Your task to perform on an android device: open wifi settings Image 0: 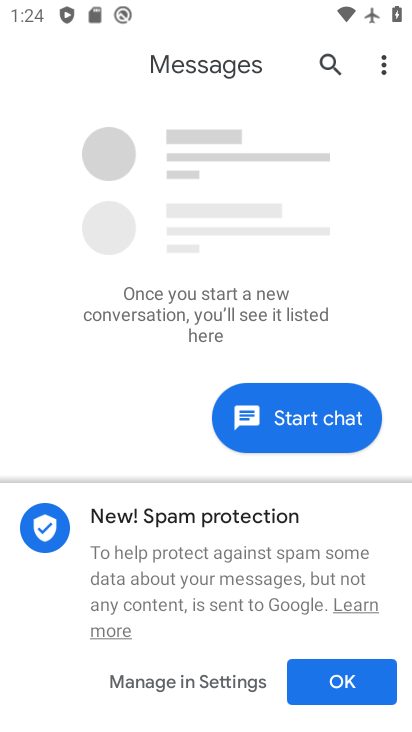
Step 0: press back button
Your task to perform on an android device: open wifi settings Image 1: 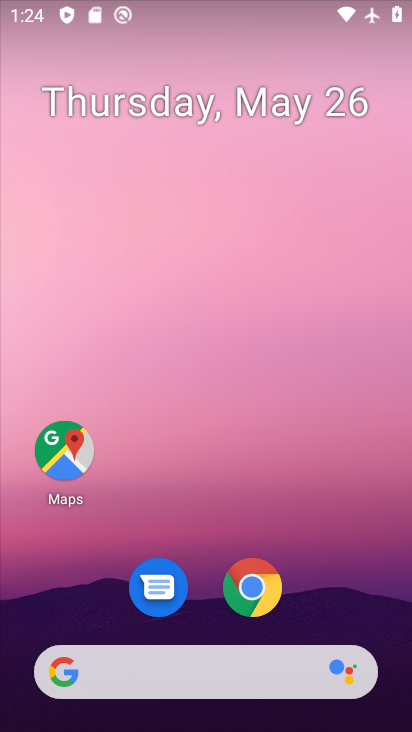
Step 1: drag from (320, 582) to (264, 67)
Your task to perform on an android device: open wifi settings Image 2: 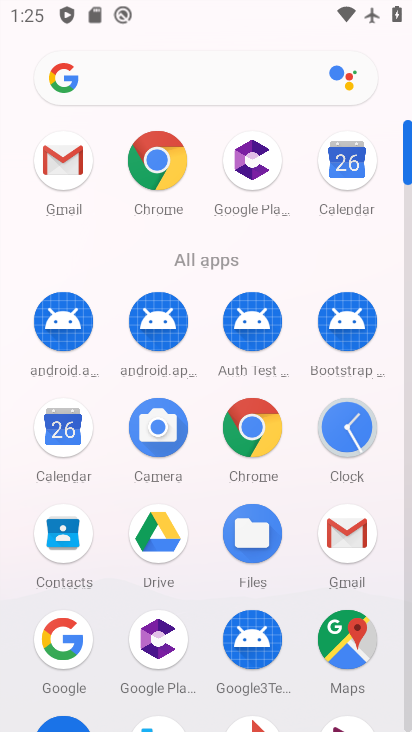
Step 2: drag from (26, 576) to (23, 220)
Your task to perform on an android device: open wifi settings Image 3: 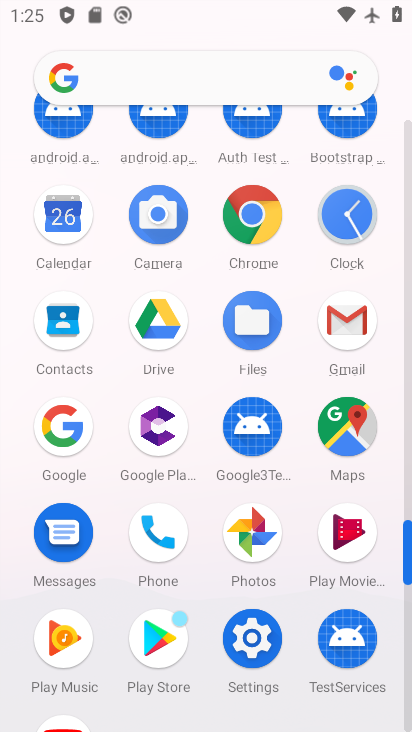
Step 3: click (247, 637)
Your task to perform on an android device: open wifi settings Image 4: 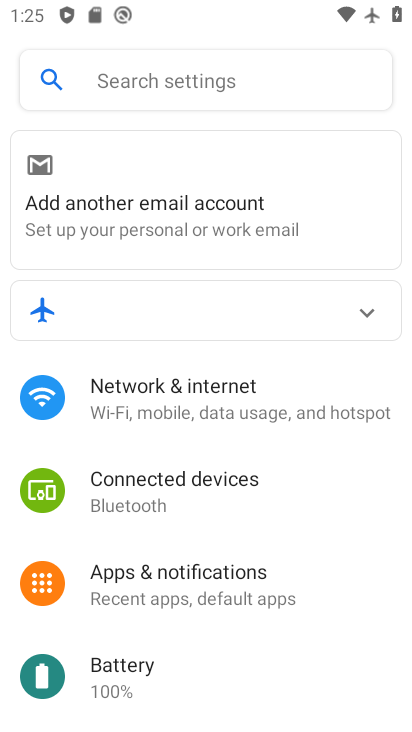
Step 4: click (245, 409)
Your task to perform on an android device: open wifi settings Image 5: 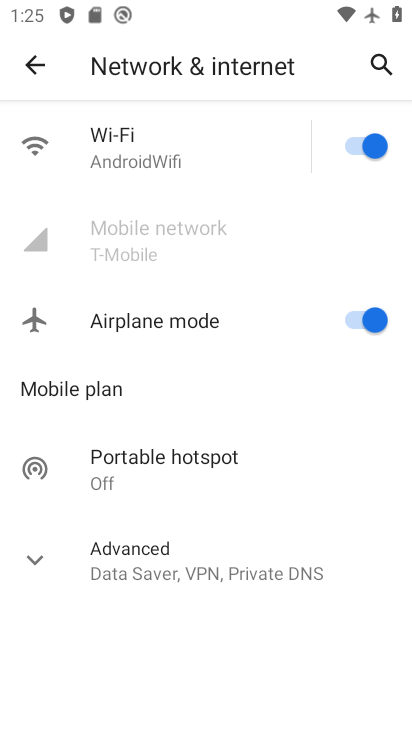
Step 5: click (144, 153)
Your task to perform on an android device: open wifi settings Image 6: 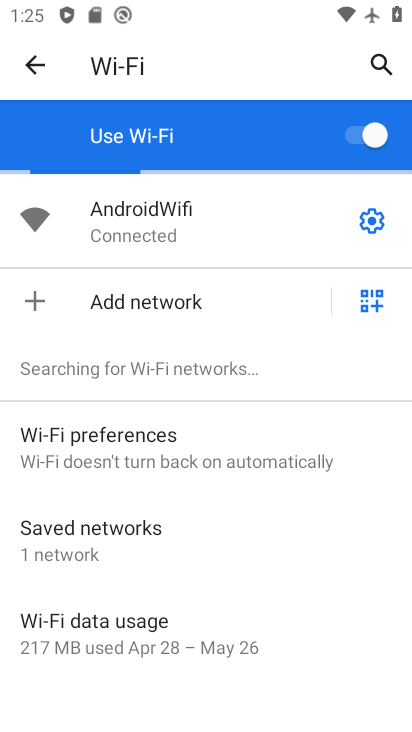
Step 6: task complete